Your task to perform on an android device: remove spam from my inbox in the gmail app Image 0: 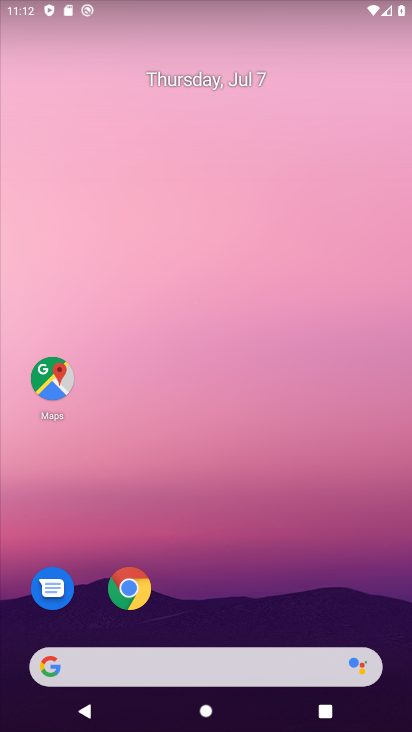
Step 0: drag from (267, 576) to (261, 5)
Your task to perform on an android device: remove spam from my inbox in the gmail app Image 1: 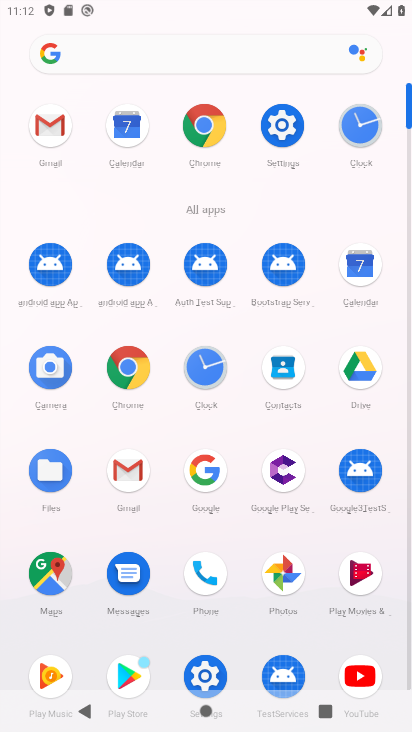
Step 1: click (44, 128)
Your task to perform on an android device: remove spam from my inbox in the gmail app Image 2: 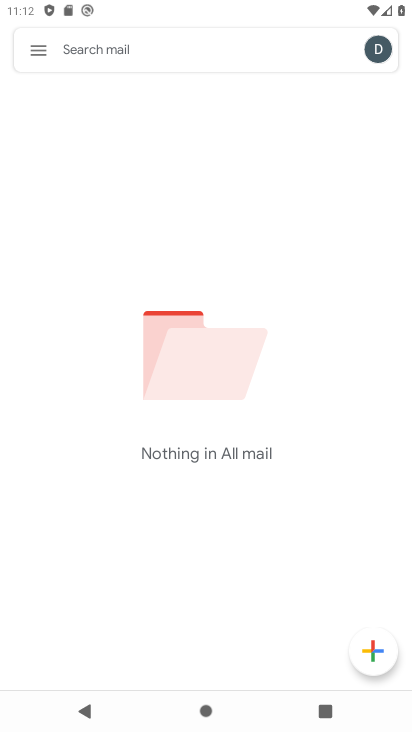
Step 2: click (38, 53)
Your task to perform on an android device: remove spam from my inbox in the gmail app Image 3: 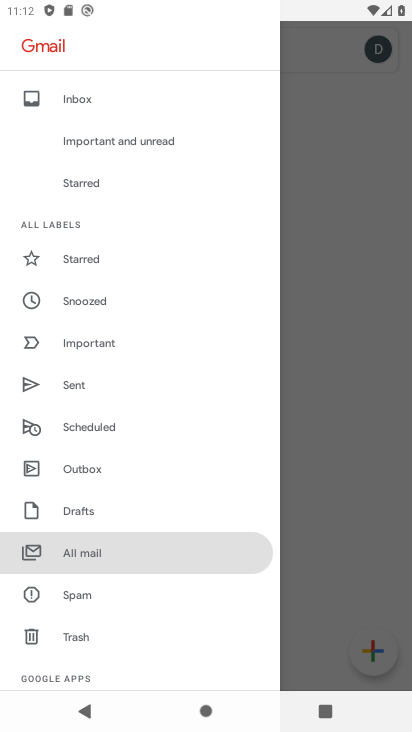
Step 3: click (77, 601)
Your task to perform on an android device: remove spam from my inbox in the gmail app Image 4: 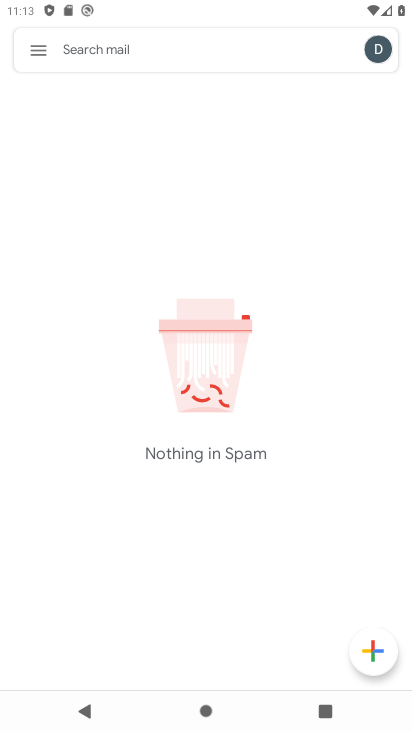
Step 4: task complete